Your task to perform on an android device: stop showing notifications on the lock screen Image 0: 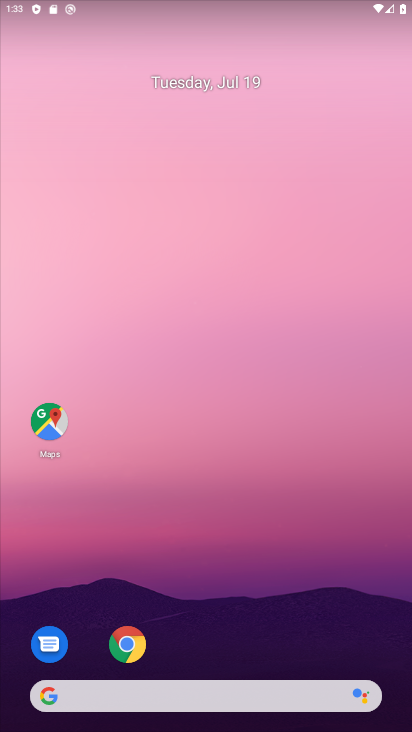
Step 0: drag from (224, 591) to (108, 173)
Your task to perform on an android device: stop showing notifications on the lock screen Image 1: 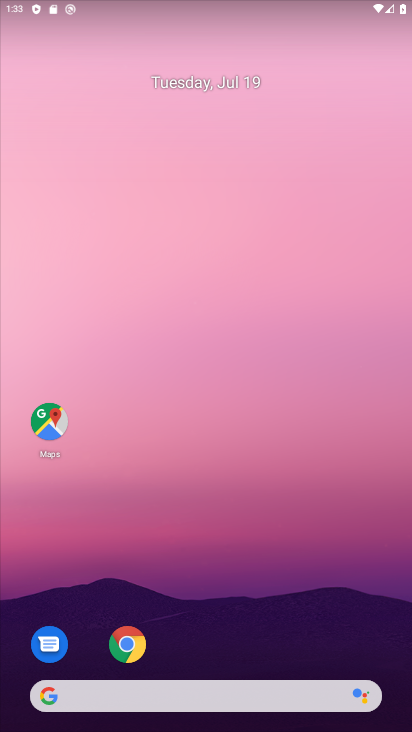
Step 1: drag from (140, 404) to (112, 278)
Your task to perform on an android device: stop showing notifications on the lock screen Image 2: 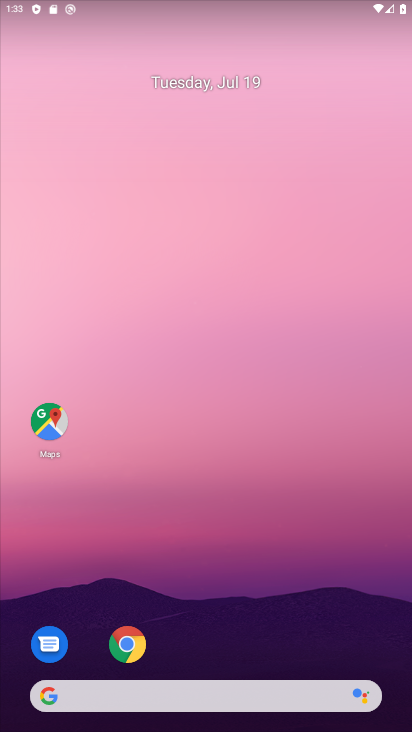
Step 2: drag from (237, 483) to (193, 239)
Your task to perform on an android device: stop showing notifications on the lock screen Image 3: 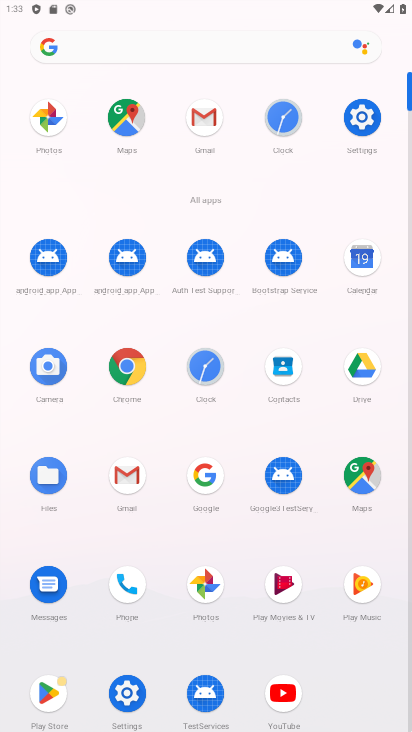
Step 3: drag from (284, 624) to (217, 194)
Your task to perform on an android device: stop showing notifications on the lock screen Image 4: 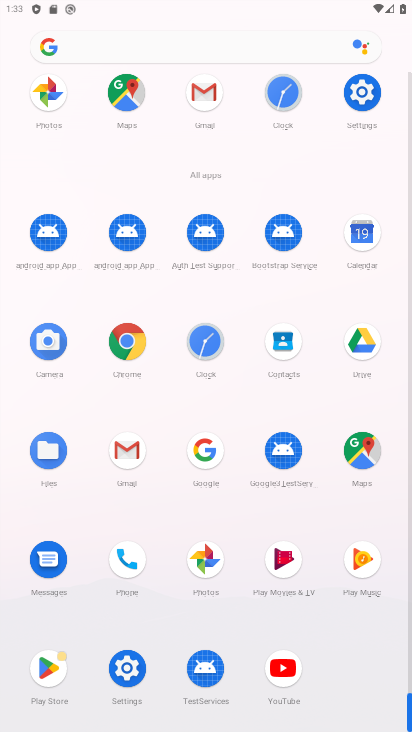
Step 4: click (372, 83)
Your task to perform on an android device: stop showing notifications on the lock screen Image 5: 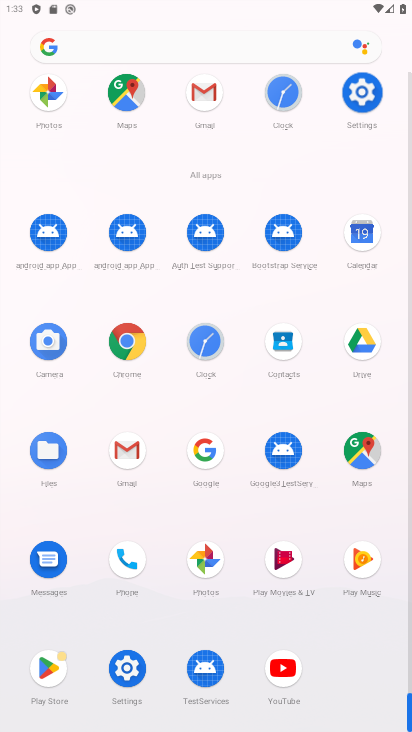
Step 5: click (360, 91)
Your task to perform on an android device: stop showing notifications on the lock screen Image 6: 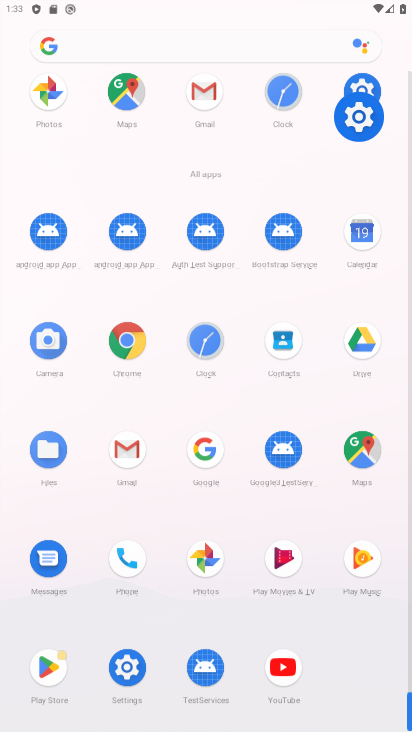
Step 6: click (360, 92)
Your task to perform on an android device: stop showing notifications on the lock screen Image 7: 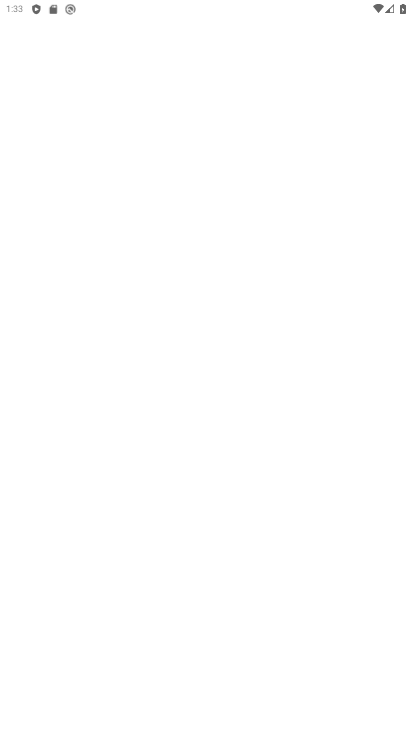
Step 7: click (352, 94)
Your task to perform on an android device: stop showing notifications on the lock screen Image 8: 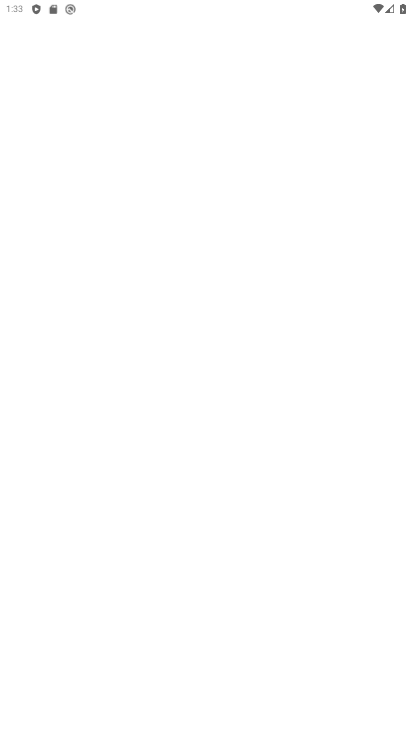
Step 8: click (352, 94)
Your task to perform on an android device: stop showing notifications on the lock screen Image 9: 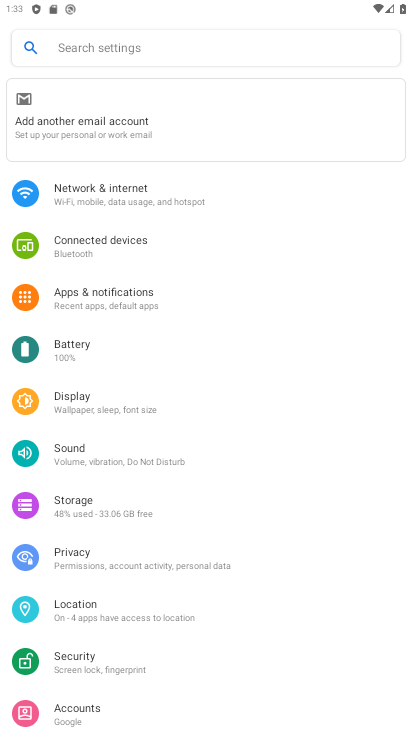
Step 9: click (103, 288)
Your task to perform on an android device: stop showing notifications on the lock screen Image 10: 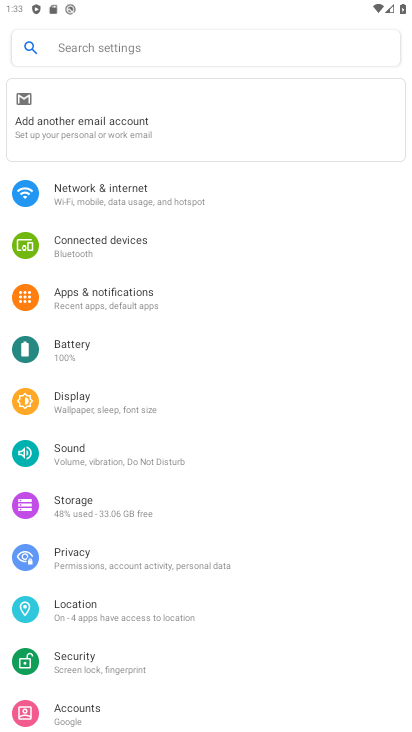
Step 10: click (103, 289)
Your task to perform on an android device: stop showing notifications on the lock screen Image 11: 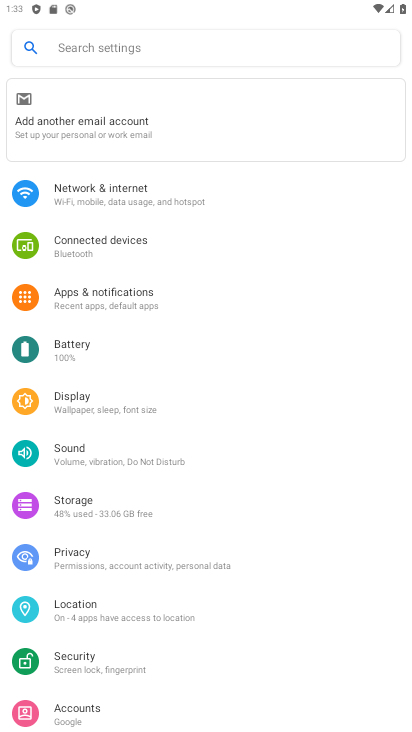
Step 11: click (106, 287)
Your task to perform on an android device: stop showing notifications on the lock screen Image 12: 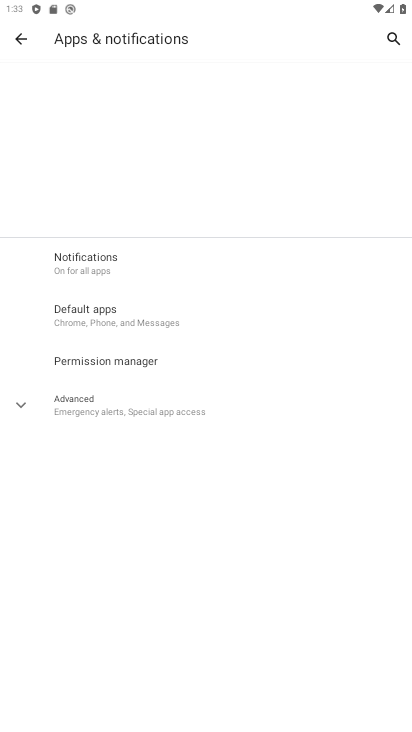
Step 12: click (106, 287)
Your task to perform on an android device: stop showing notifications on the lock screen Image 13: 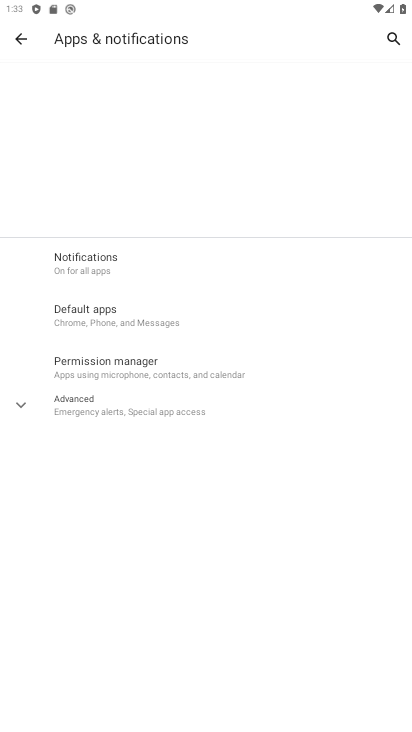
Step 13: click (106, 287)
Your task to perform on an android device: stop showing notifications on the lock screen Image 14: 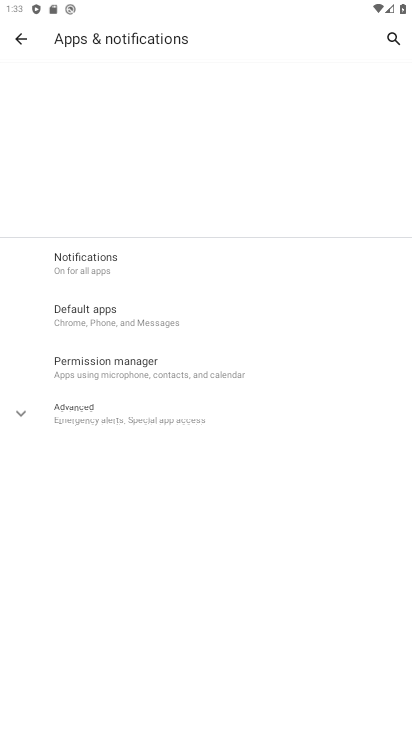
Step 14: click (98, 270)
Your task to perform on an android device: stop showing notifications on the lock screen Image 15: 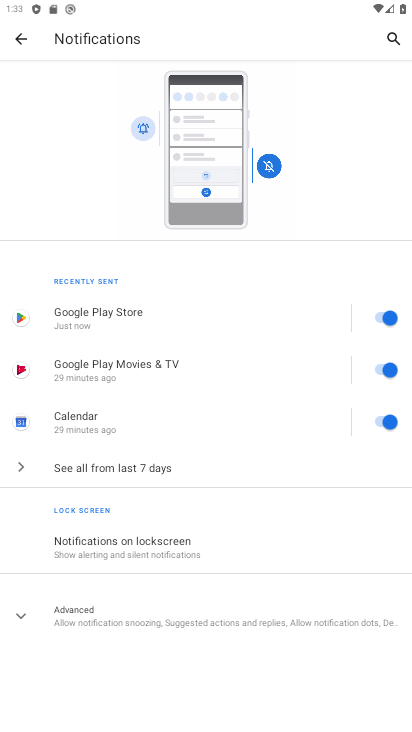
Step 15: click (112, 552)
Your task to perform on an android device: stop showing notifications on the lock screen Image 16: 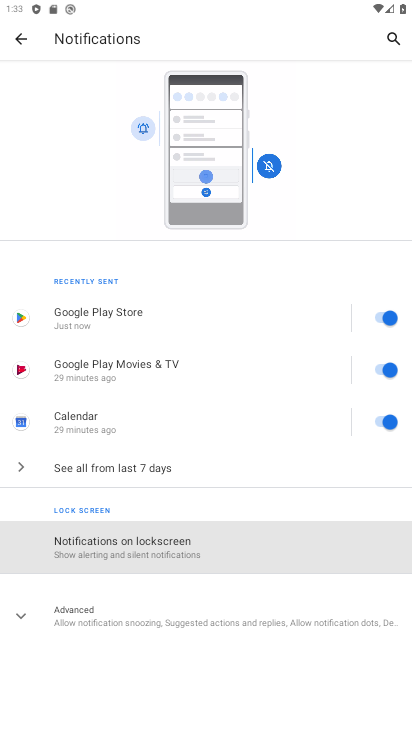
Step 16: click (121, 550)
Your task to perform on an android device: stop showing notifications on the lock screen Image 17: 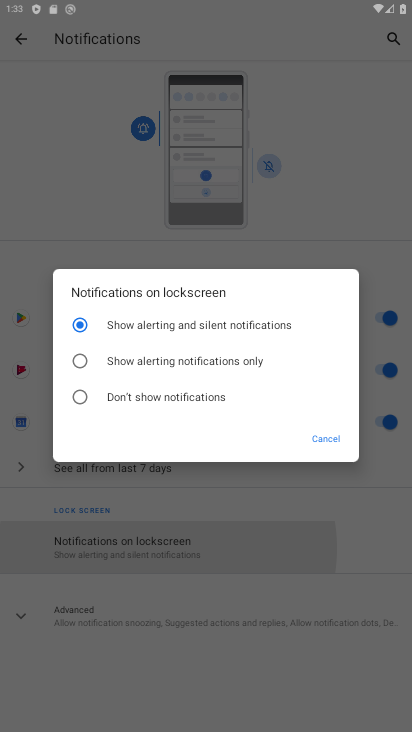
Step 17: click (135, 556)
Your task to perform on an android device: stop showing notifications on the lock screen Image 18: 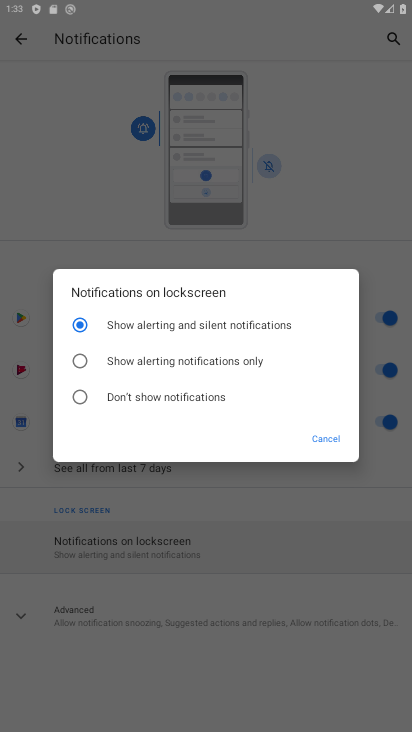
Step 18: click (136, 555)
Your task to perform on an android device: stop showing notifications on the lock screen Image 19: 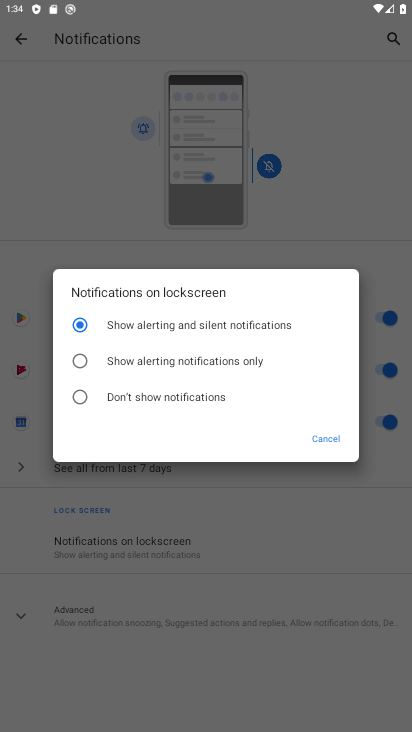
Step 19: click (70, 395)
Your task to perform on an android device: stop showing notifications on the lock screen Image 20: 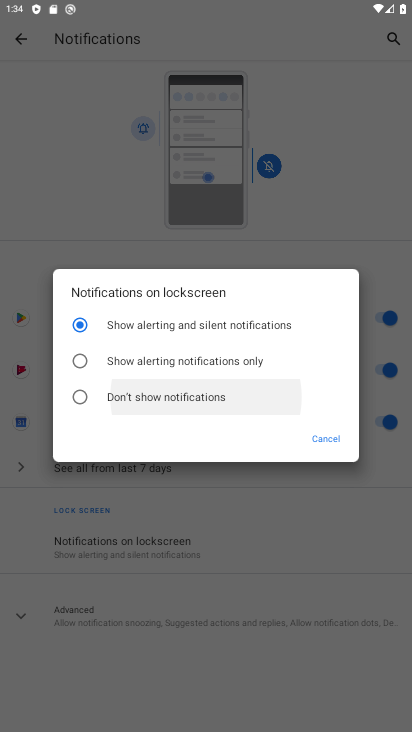
Step 20: click (70, 395)
Your task to perform on an android device: stop showing notifications on the lock screen Image 21: 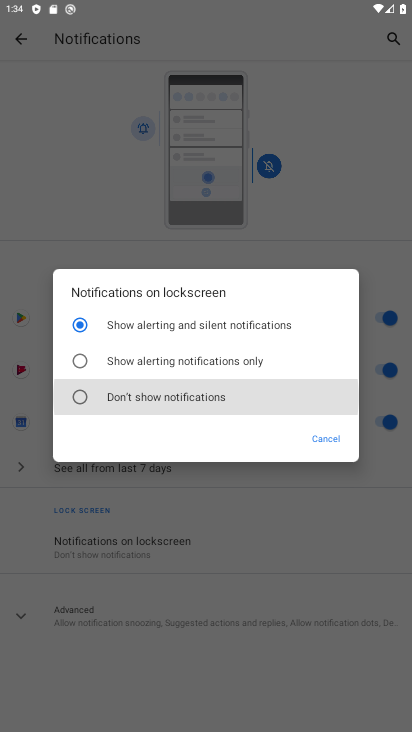
Step 21: click (72, 395)
Your task to perform on an android device: stop showing notifications on the lock screen Image 22: 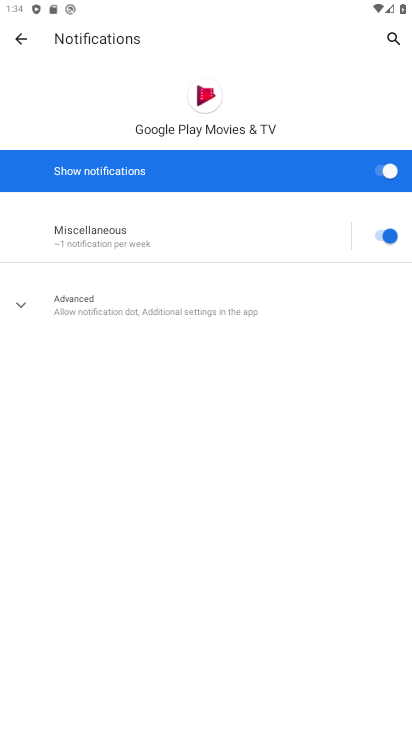
Step 22: task complete